Your task to perform on an android device: Open Google Chrome and click the shortcut for Amazon.com Image 0: 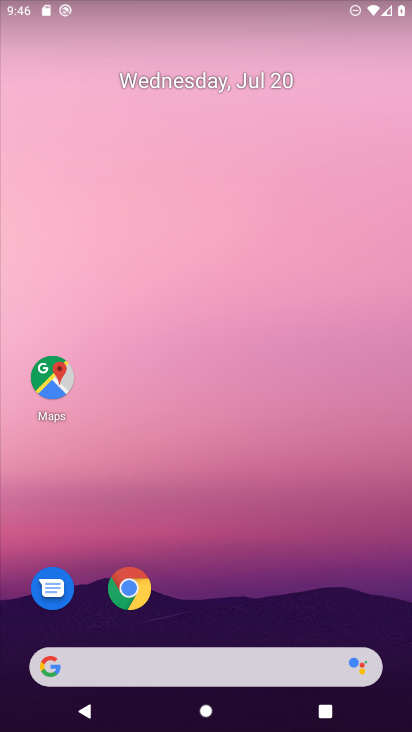
Step 0: click (133, 590)
Your task to perform on an android device: Open Google Chrome and click the shortcut for Amazon.com Image 1: 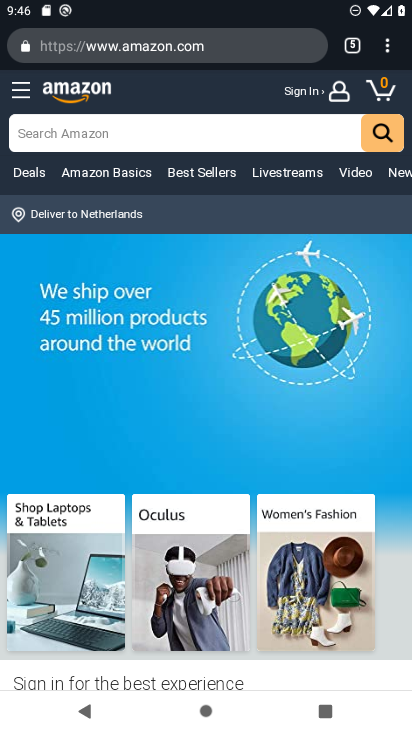
Step 1: task complete